Your task to perform on an android device: empty trash in google photos Image 0: 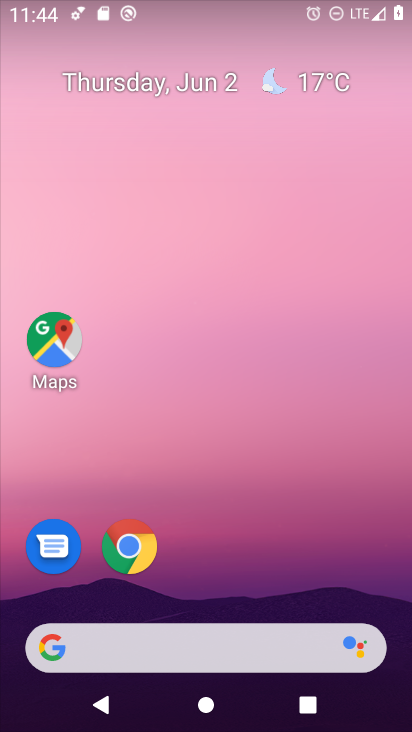
Step 0: drag from (208, 540) to (177, 56)
Your task to perform on an android device: empty trash in google photos Image 1: 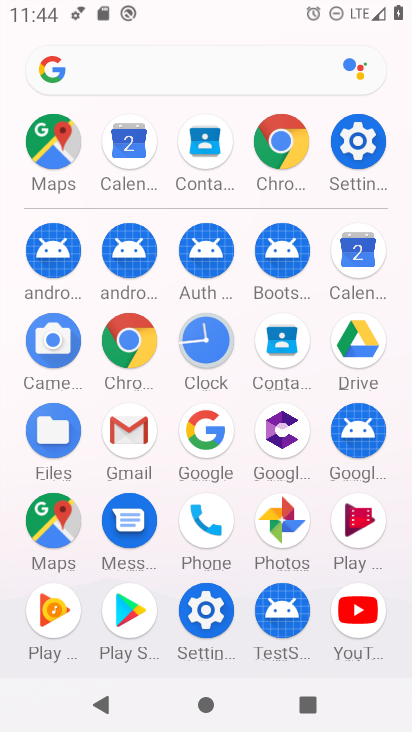
Step 1: drag from (3, 525) to (20, 226)
Your task to perform on an android device: empty trash in google photos Image 2: 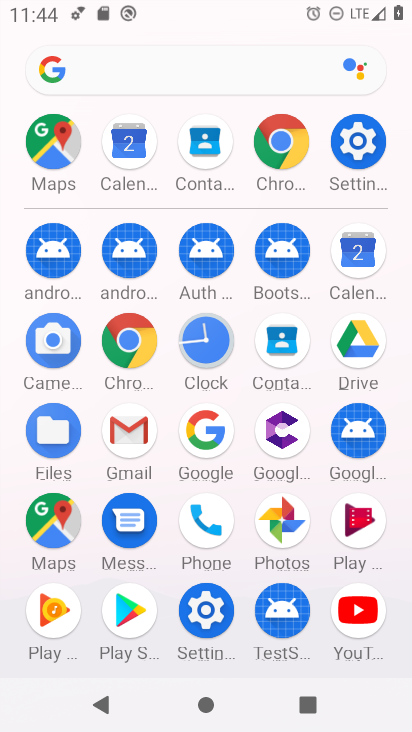
Step 2: click (281, 517)
Your task to perform on an android device: empty trash in google photos Image 3: 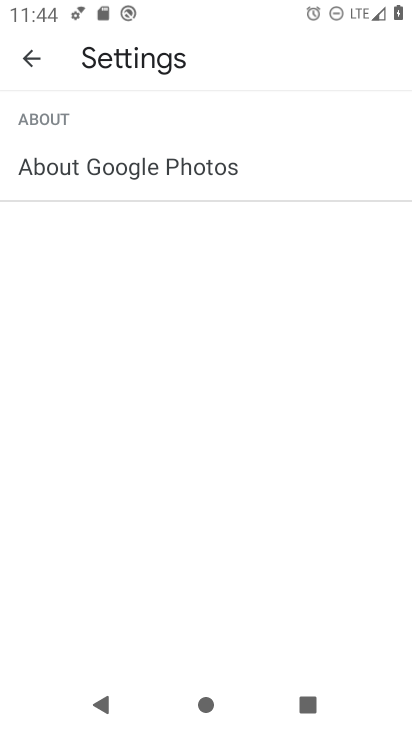
Step 3: click (35, 57)
Your task to perform on an android device: empty trash in google photos Image 4: 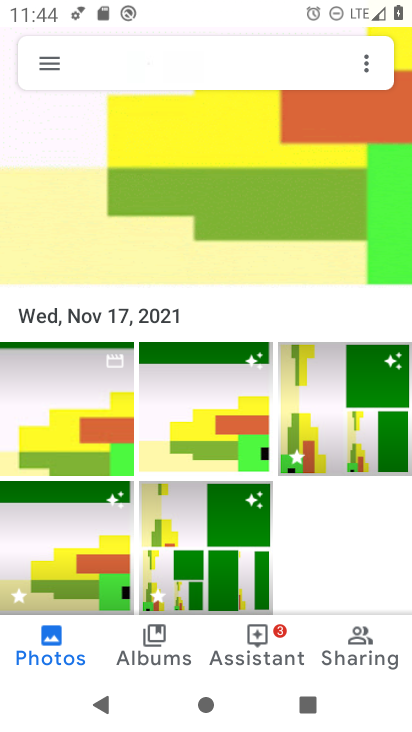
Step 4: click (53, 66)
Your task to perform on an android device: empty trash in google photos Image 5: 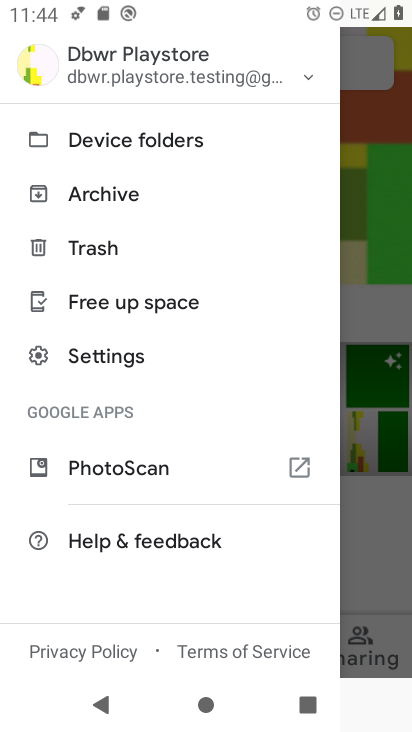
Step 5: click (104, 246)
Your task to perform on an android device: empty trash in google photos Image 6: 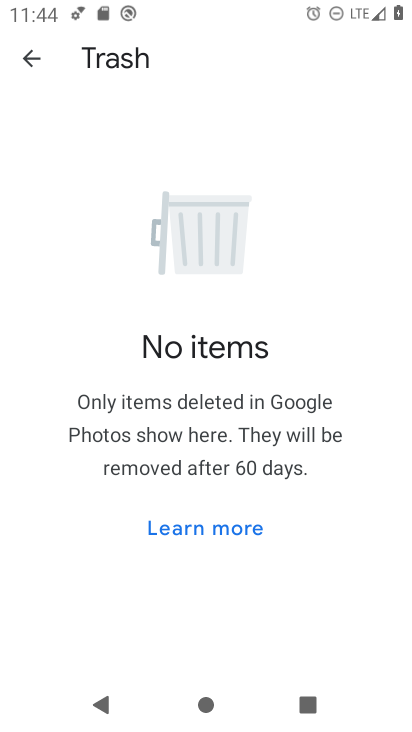
Step 6: task complete